Your task to perform on an android device: Open my contact list Image 0: 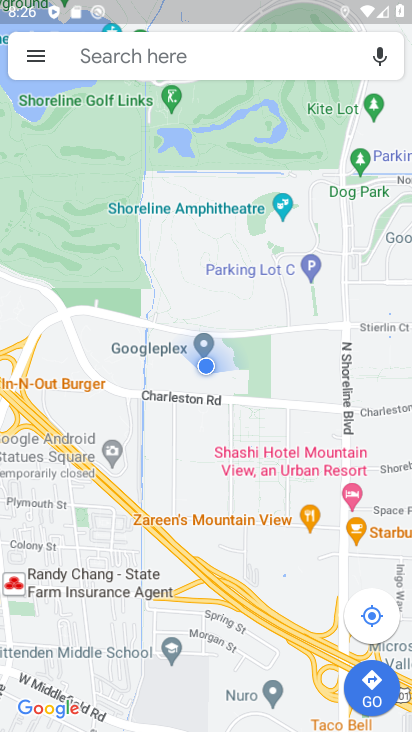
Step 0: press home button
Your task to perform on an android device: Open my contact list Image 1: 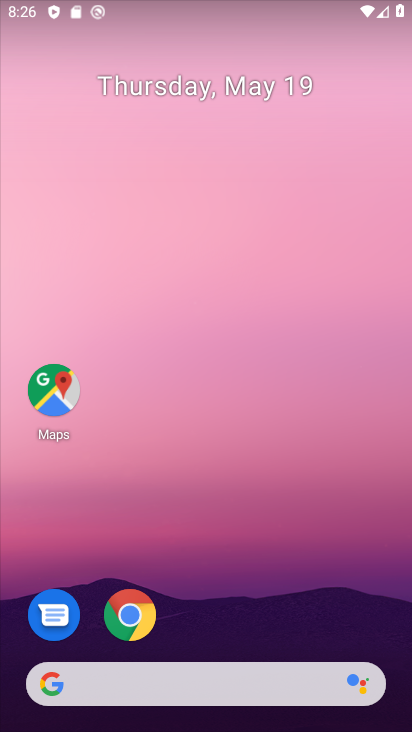
Step 1: drag from (240, 599) to (175, 37)
Your task to perform on an android device: Open my contact list Image 2: 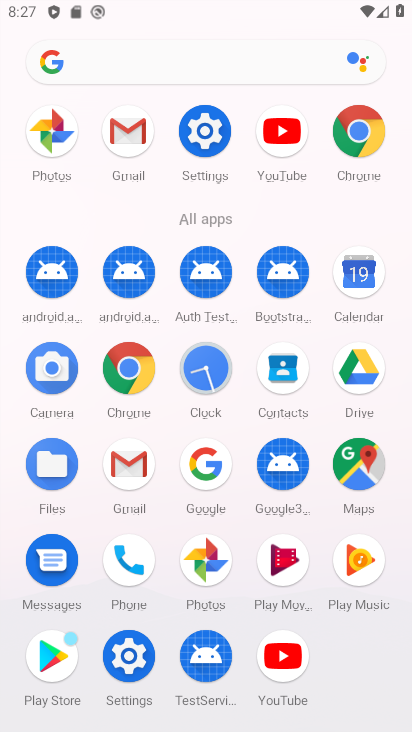
Step 2: click (273, 363)
Your task to perform on an android device: Open my contact list Image 3: 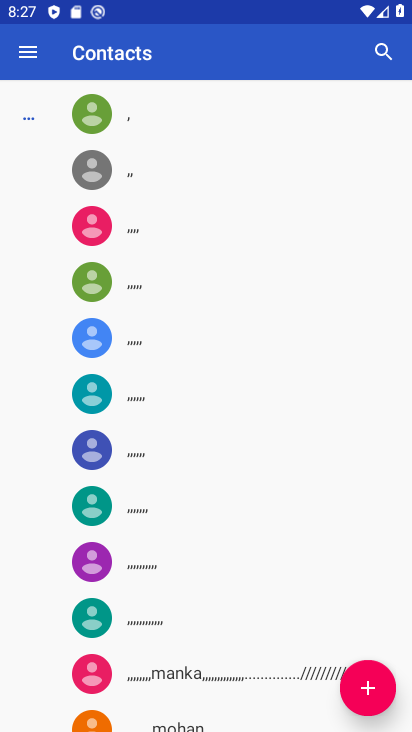
Step 3: task complete